Your task to perform on an android device: Search for seafood restaurants on Google Maps Image 0: 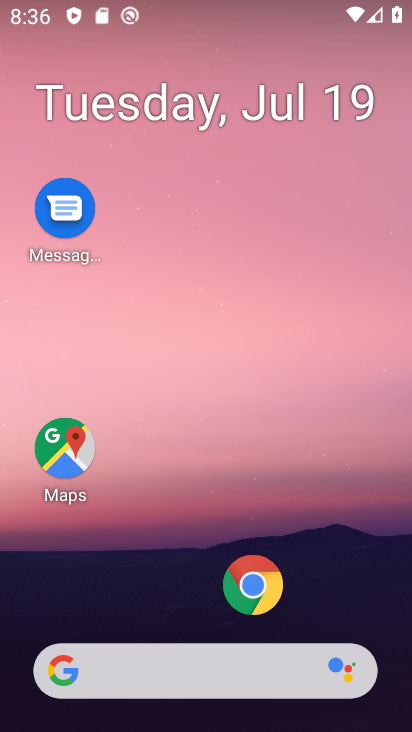
Step 0: click (320, 457)
Your task to perform on an android device: Search for seafood restaurants on Google Maps Image 1: 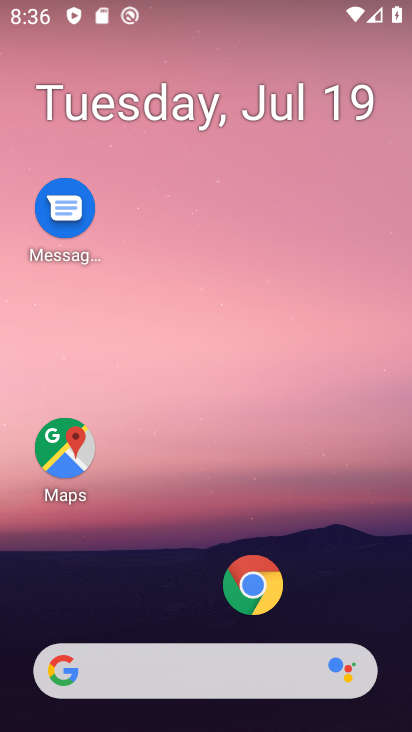
Step 1: click (67, 448)
Your task to perform on an android device: Search for seafood restaurants on Google Maps Image 2: 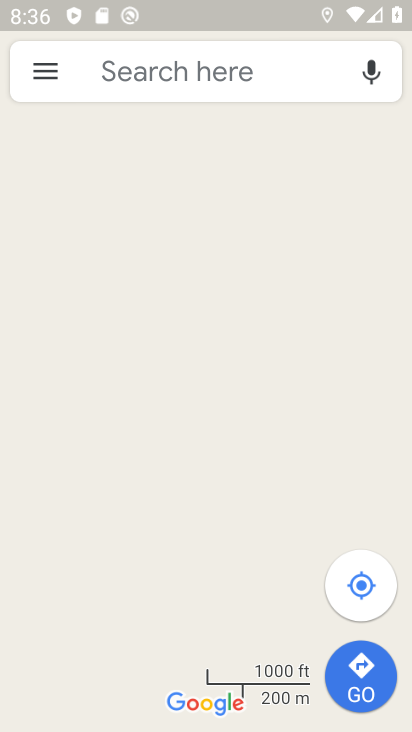
Step 2: click (203, 99)
Your task to perform on an android device: Search for seafood restaurants on Google Maps Image 3: 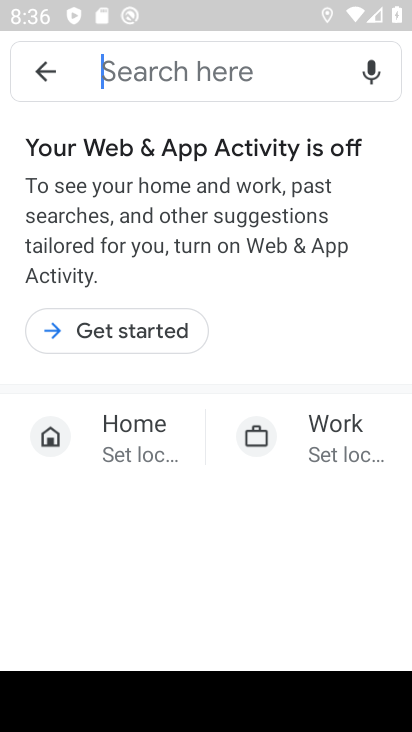
Step 3: click (76, 336)
Your task to perform on an android device: Search for seafood restaurants on Google Maps Image 4: 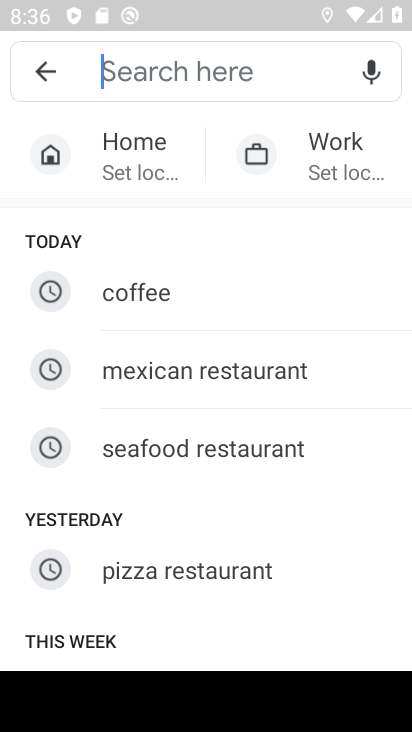
Step 4: click (141, 439)
Your task to perform on an android device: Search for seafood restaurants on Google Maps Image 5: 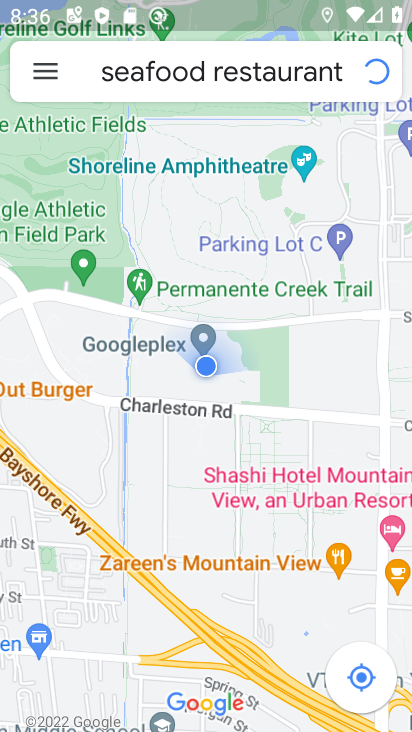
Step 5: task complete